Your task to perform on an android device: Open Youtube and go to "Your channel" Image 0: 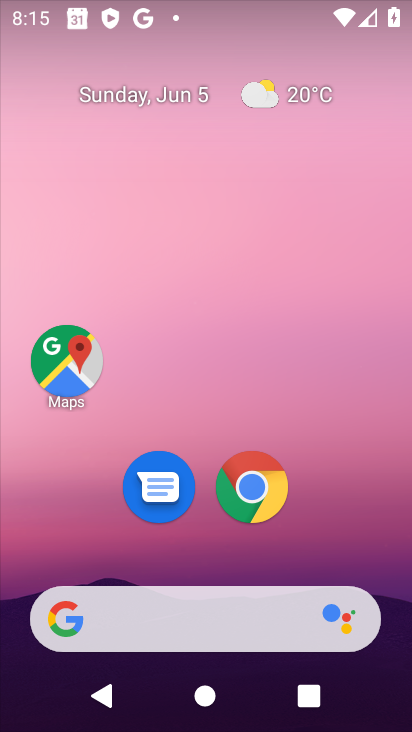
Step 0: drag from (238, 429) to (371, 2)
Your task to perform on an android device: Open Youtube and go to "Your channel" Image 1: 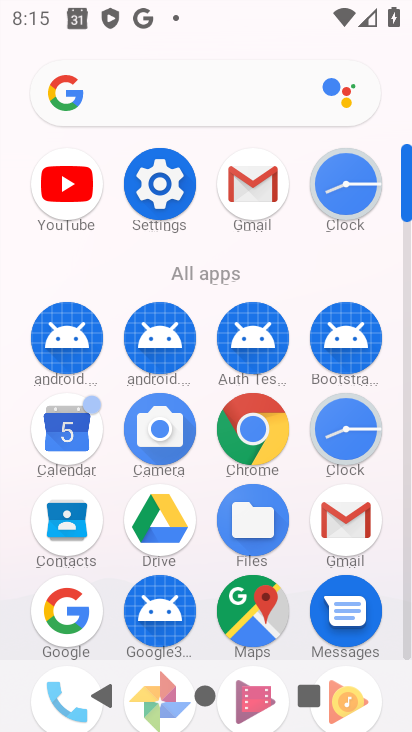
Step 1: click (55, 186)
Your task to perform on an android device: Open Youtube and go to "Your channel" Image 2: 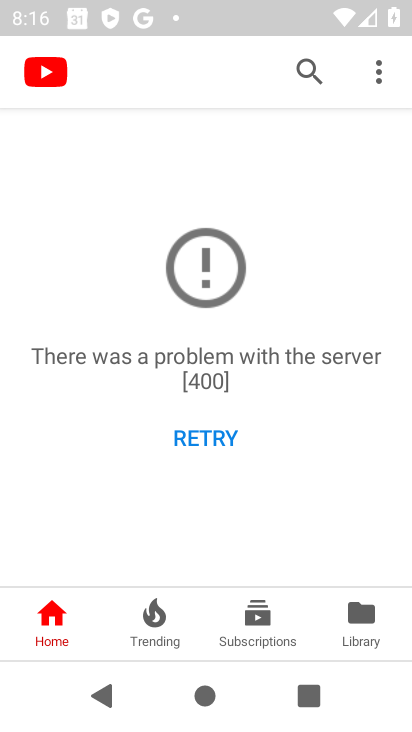
Step 2: task complete